Your task to perform on an android device: Open network settings Image 0: 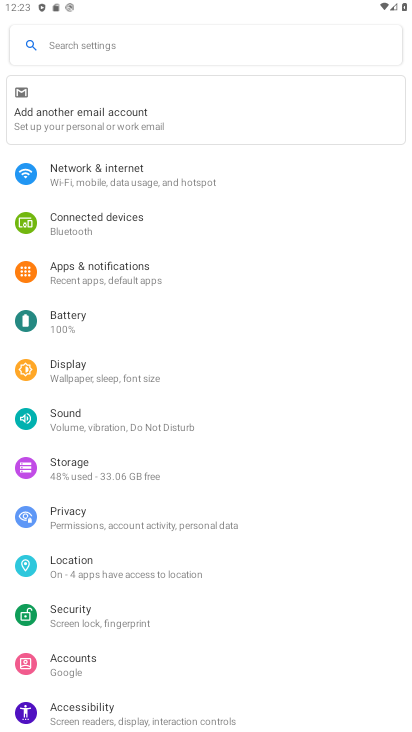
Step 0: click (113, 179)
Your task to perform on an android device: Open network settings Image 1: 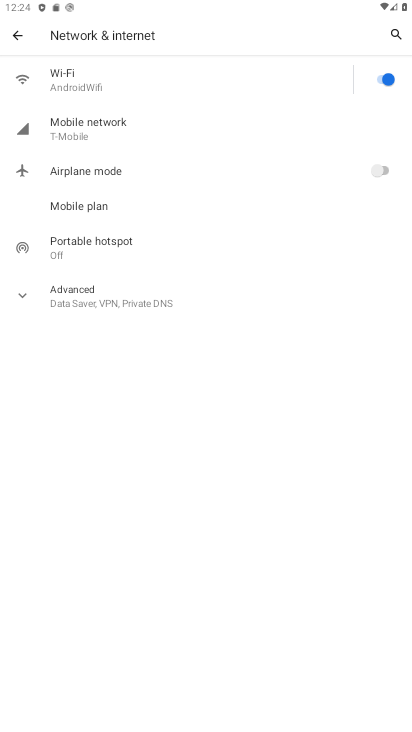
Step 1: click (73, 135)
Your task to perform on an android device: Open network settings Image 2: 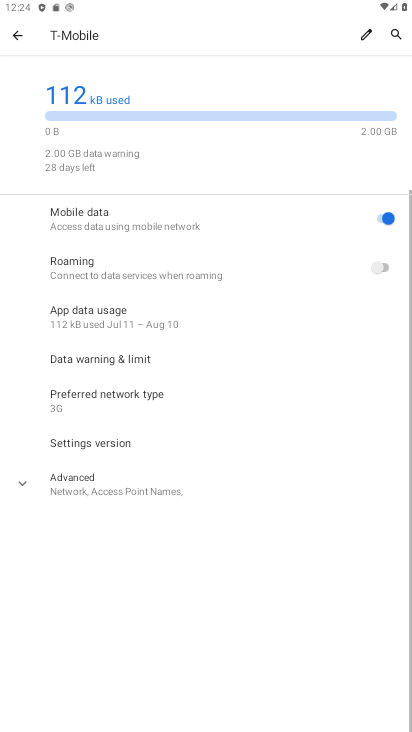
Step 2: task complete